Your task to perform on an android device: turn on airplane mode Image 0: 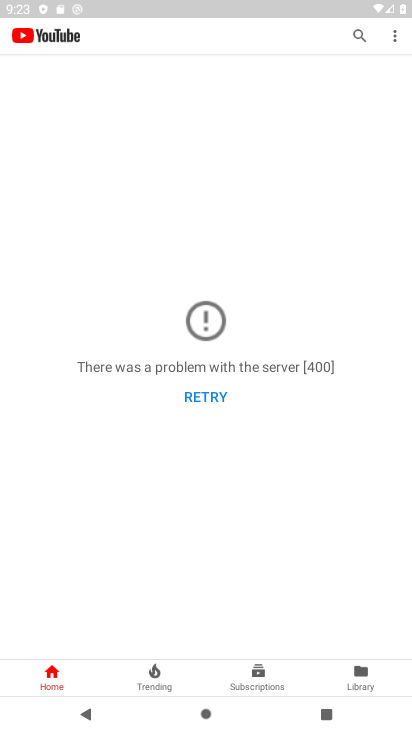
Step 0: press home button
Your task to perform on an android device: turn on airplane mode Image 1: 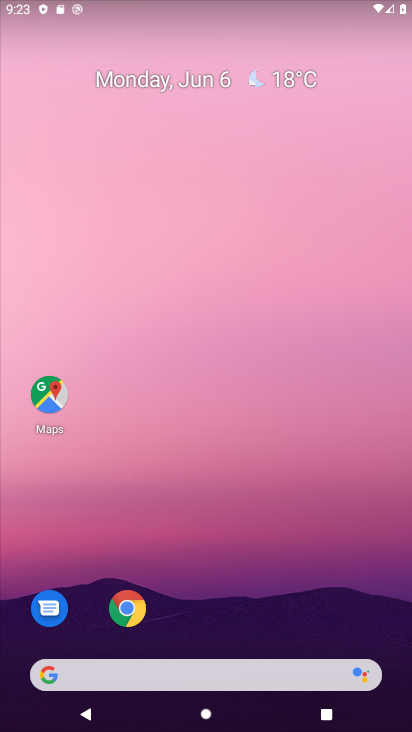
Step 1: click (127, 611)
Your task to perform on an android device: turn on airplane mode Image 2: 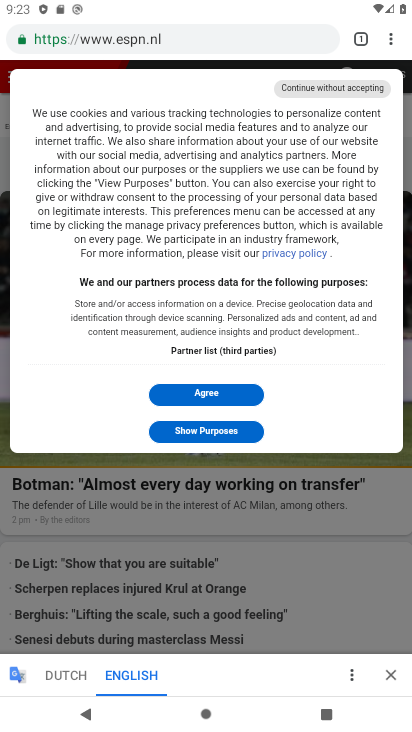
Step 2: click (219, 396)
Your task to perform on an android device: turn on airplane mode Image 3: 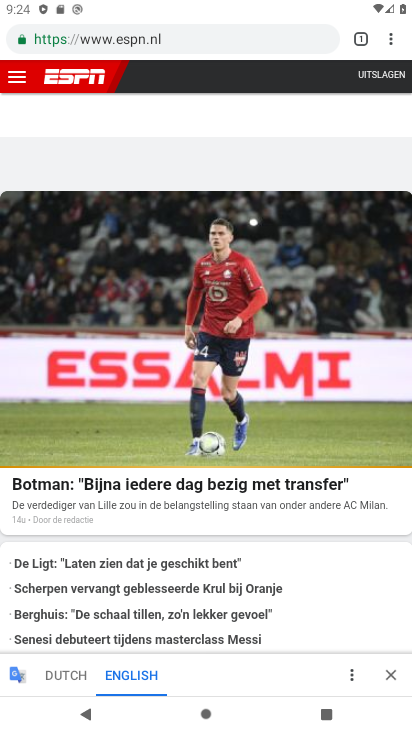
Step 3: task complete